Your task to perform on an android device: Go to battery settings Image 0: 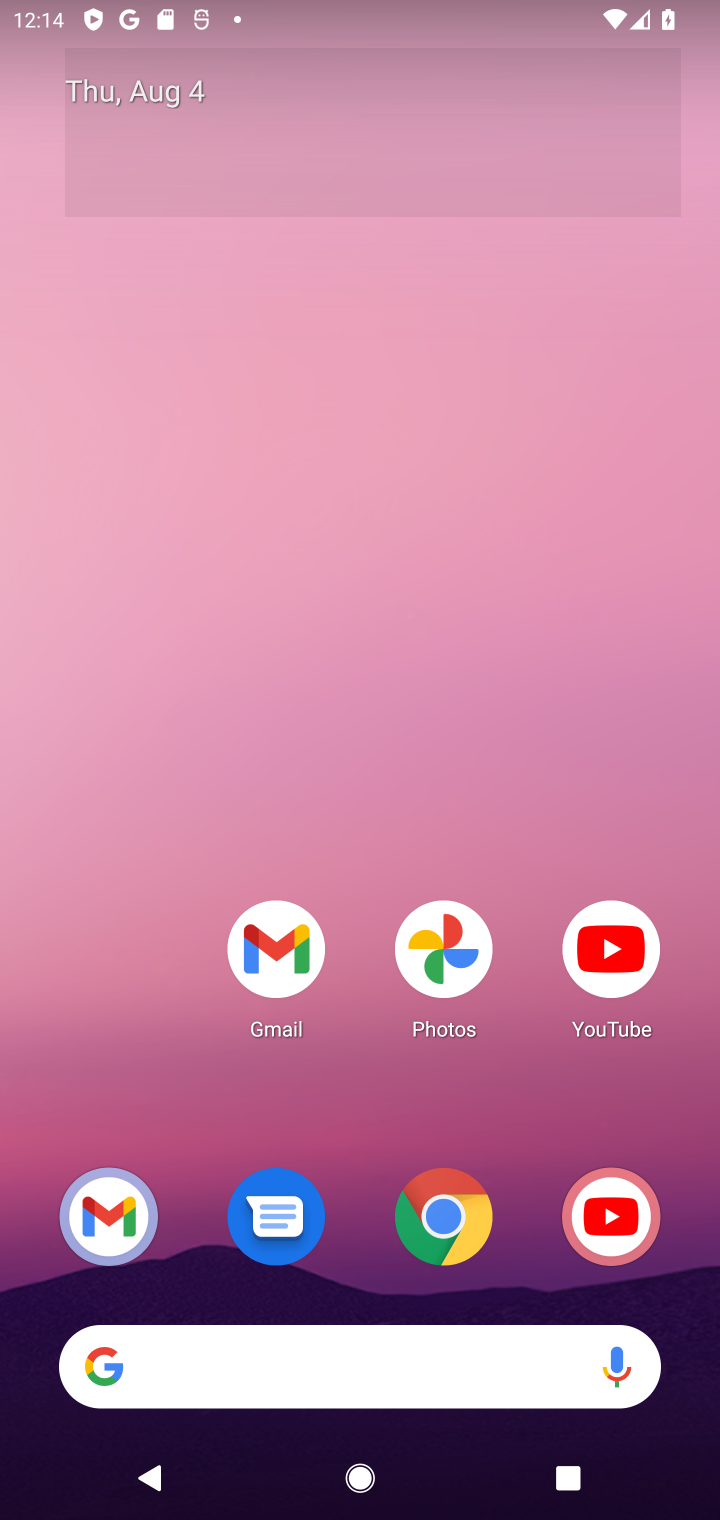
Step 0: drag from (362, 848) to (330, 380)
Your task to perform on an android device: Go to battery settings Image 1: 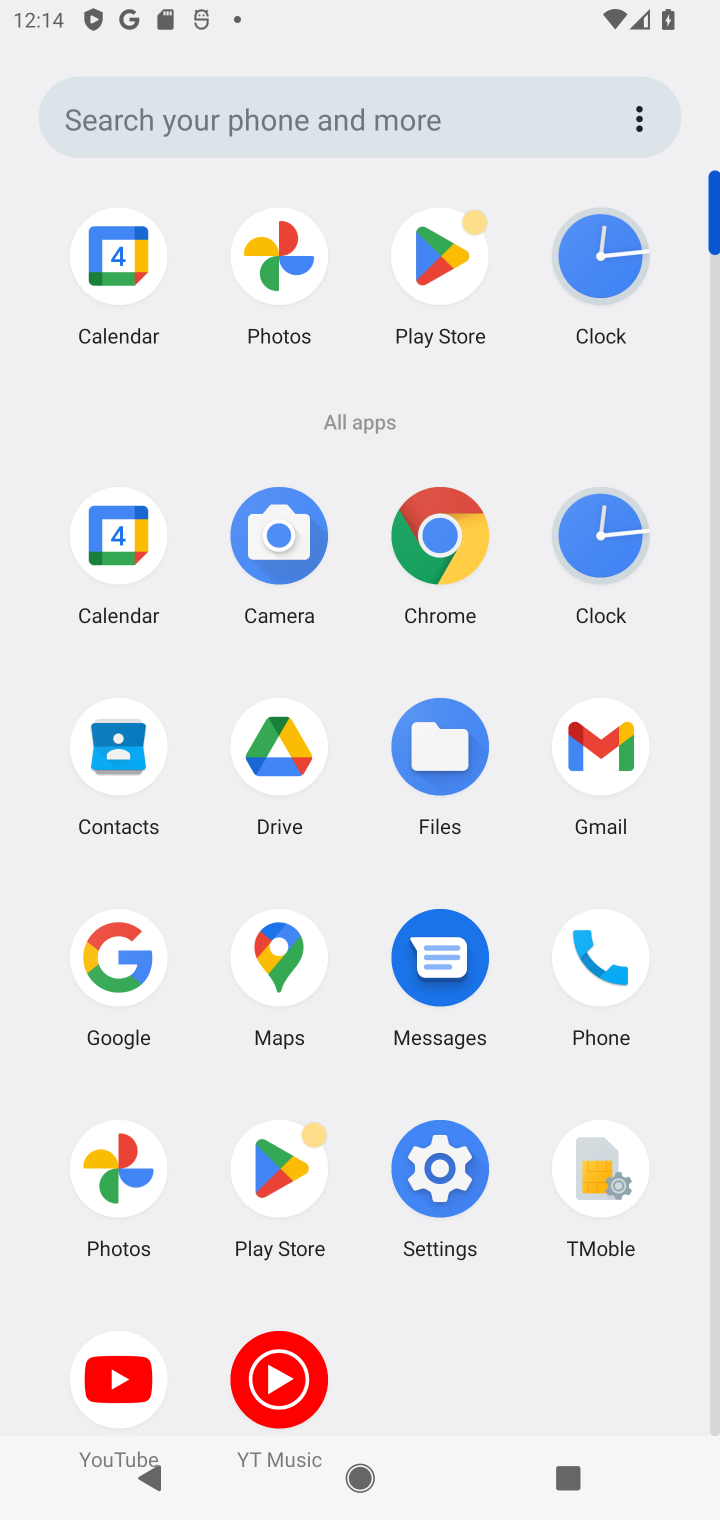
Step 1: click (440, 1182)
Your task to perform on an android device: Go to battery settings Image 2: 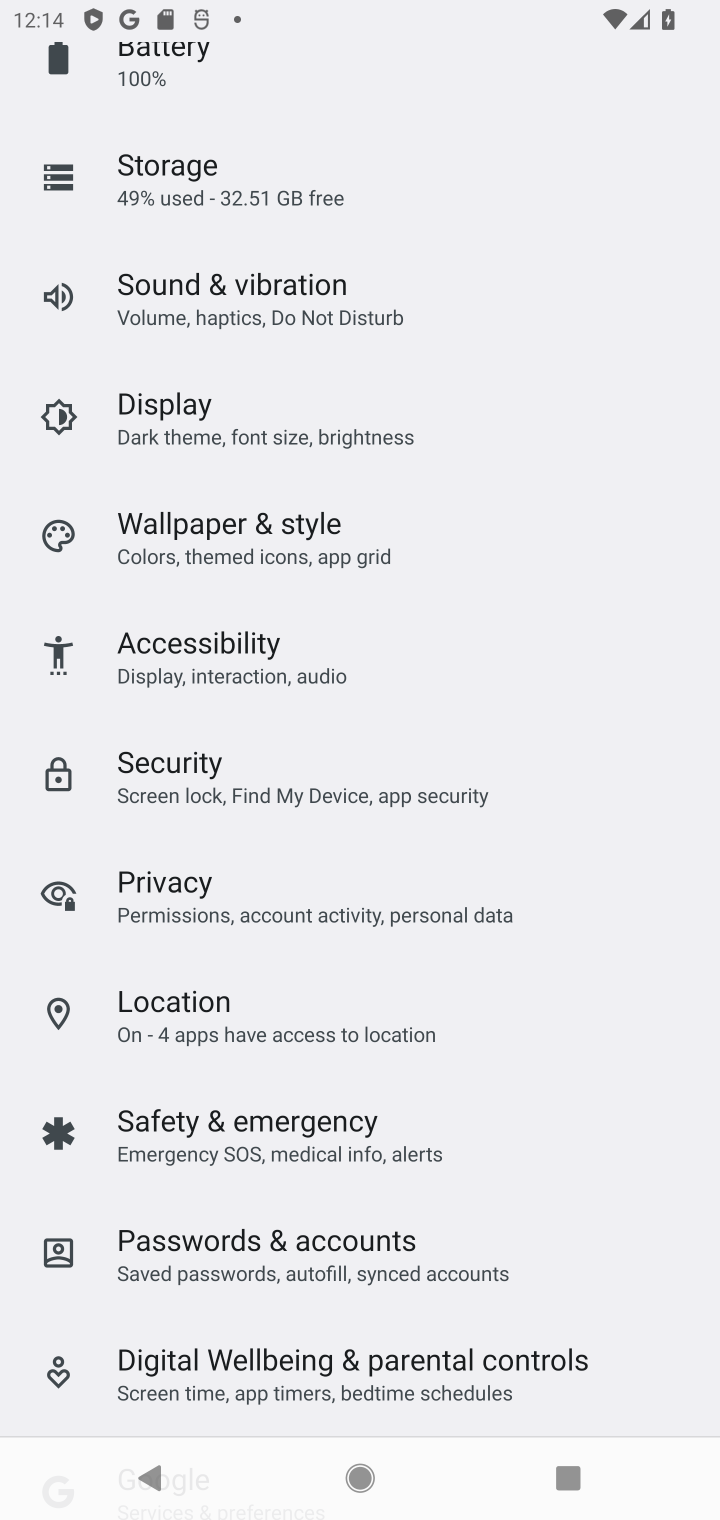
Step 2: drag from (319, 1143) to (291, 643)
Your task to perform on an android device: Go to battery settings Image 3: 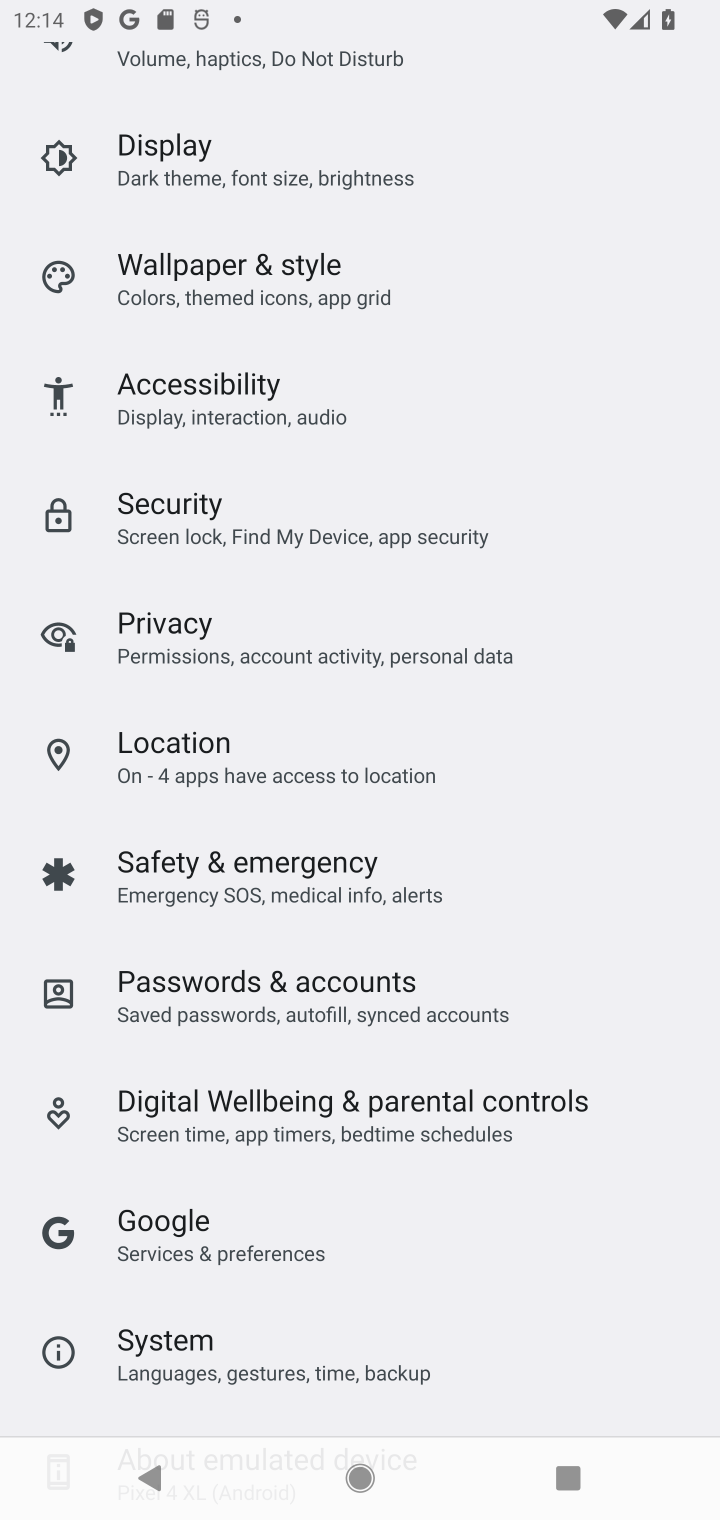
Step 3: drag from (305, 463) to (371, 1075)
Your task to perform on an android device: Go to battery settings Image 4: 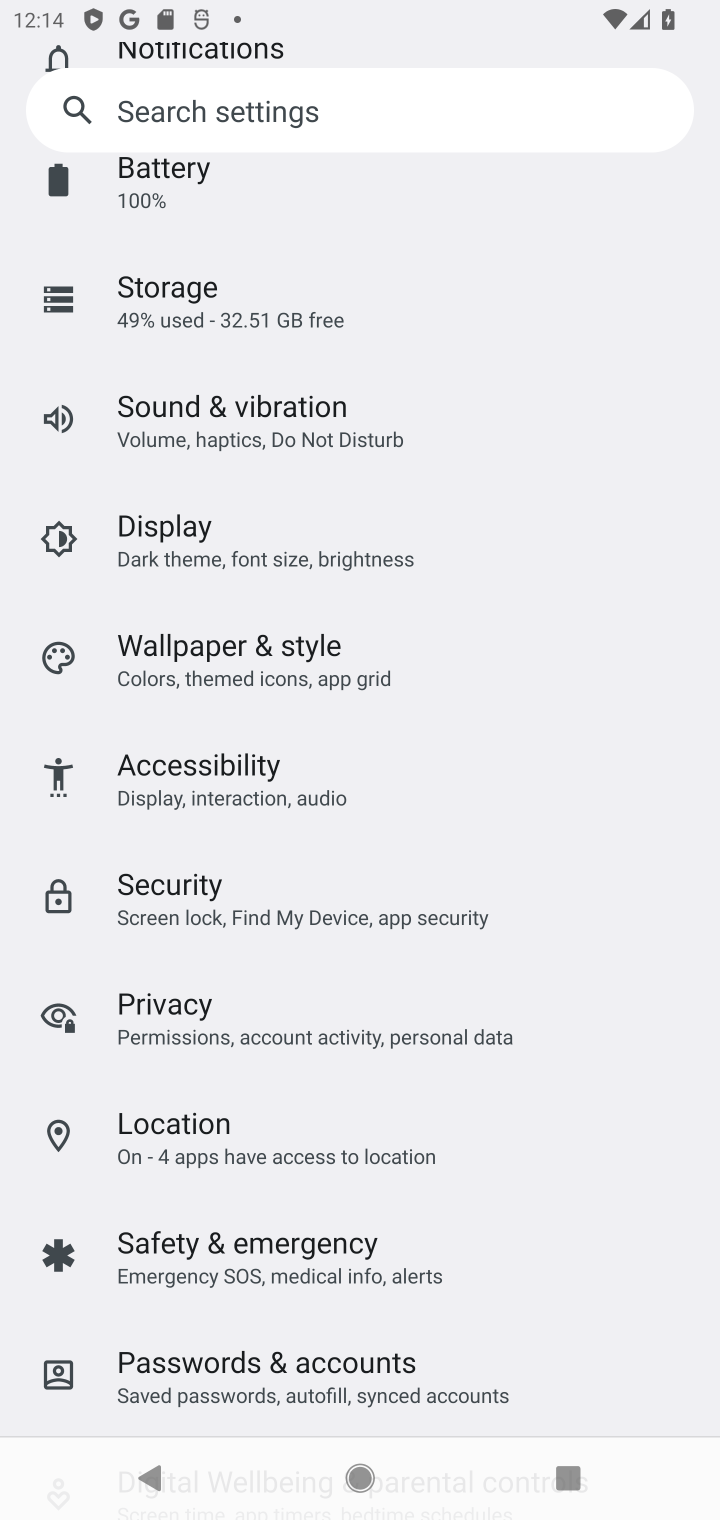
Step 4: click (183, 179)
Your task to perform on an android device: Go to battery settings Image 5: 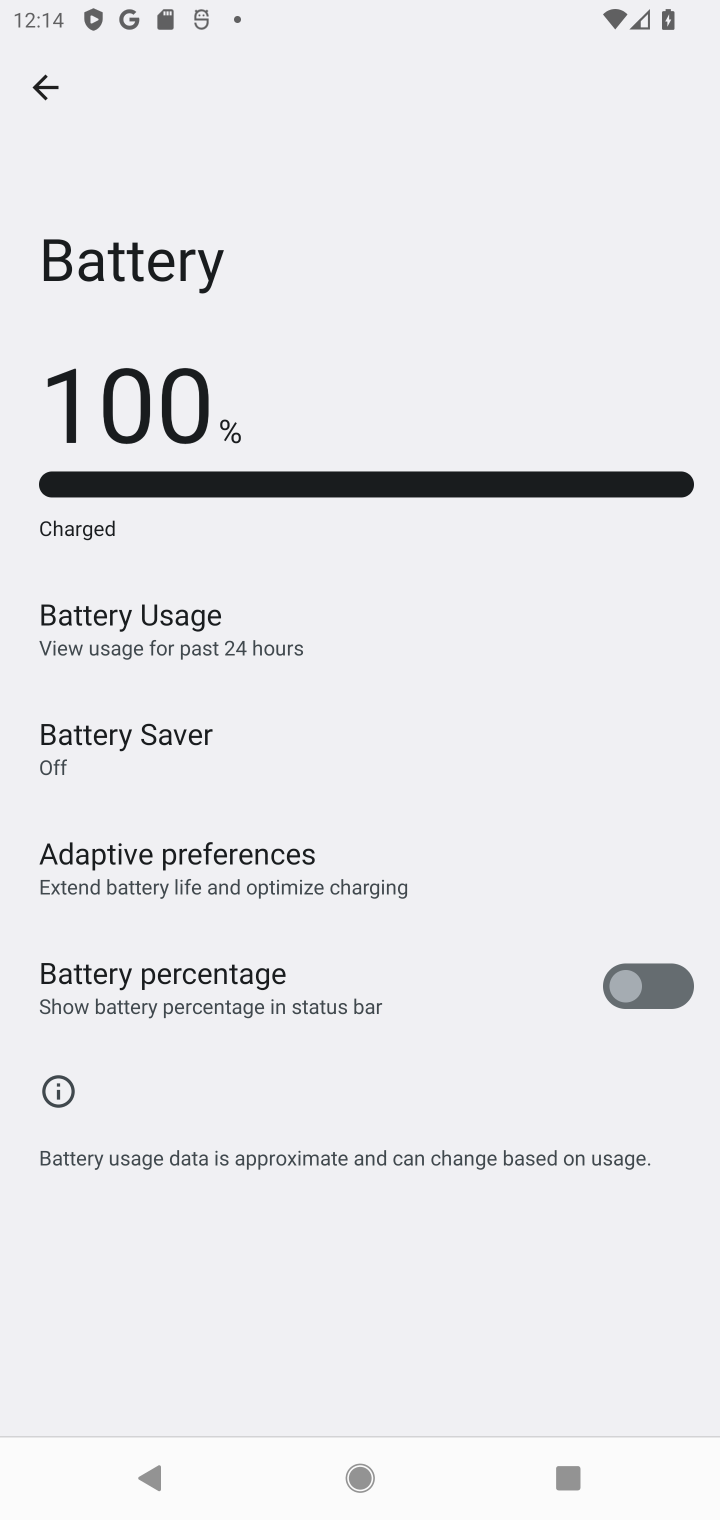
Step 5: task complete